Your task to perform on an android device: turn on the 24-hour format for clock Image 0: 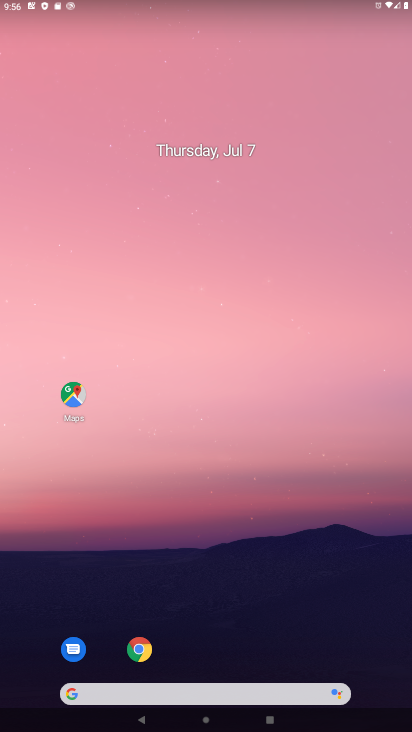
Step 0: drag from (232, 679) to (234, 230)
Your task to perform on an android device: turn on the 24-hour format for clock Image 1: 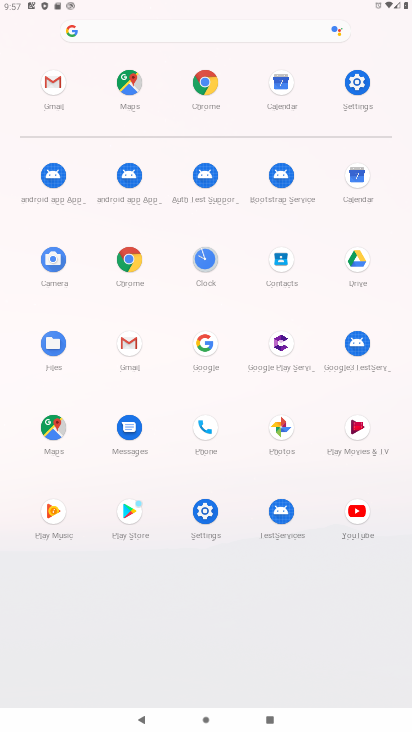
Step 1: click (204, 258)
Your task to perform on an android device: turn on the 24-hour format for clock Image 2: 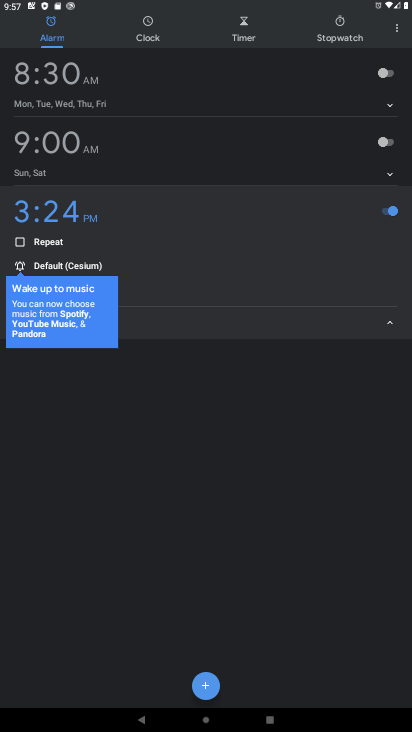
Step 2: click (399, 31)
Your task to perform on an android device: turn on the 24-hour format for clock Image 3: 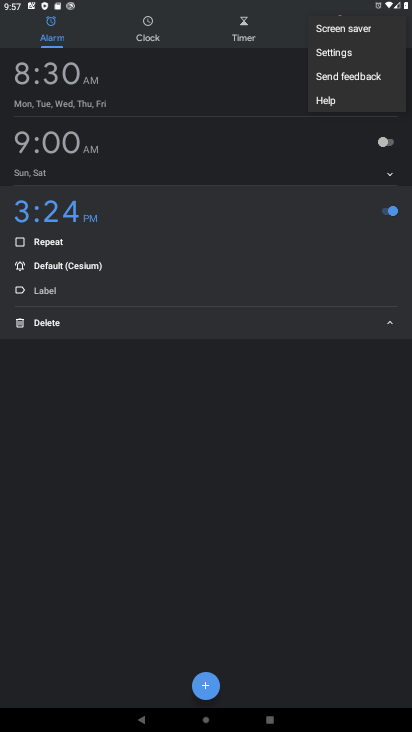
Step 3: click (339, 53)
Your task to perform on an android device: turn on the 24-hour format for clock Image 4: 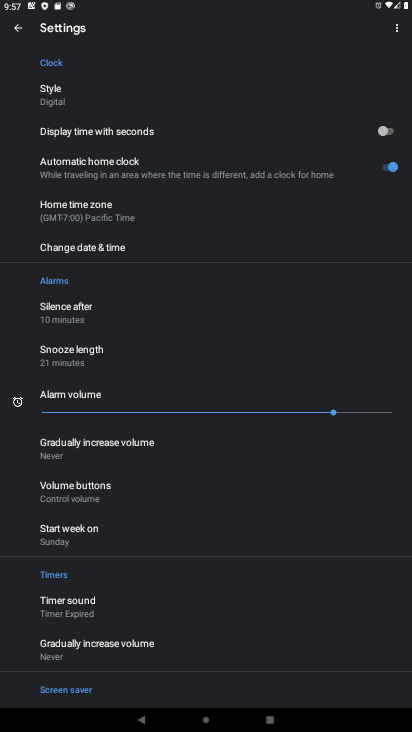
Step 4: click (98, 244)
Your task to perform on an android device: turn on the 24-hour format for clock Image 5: 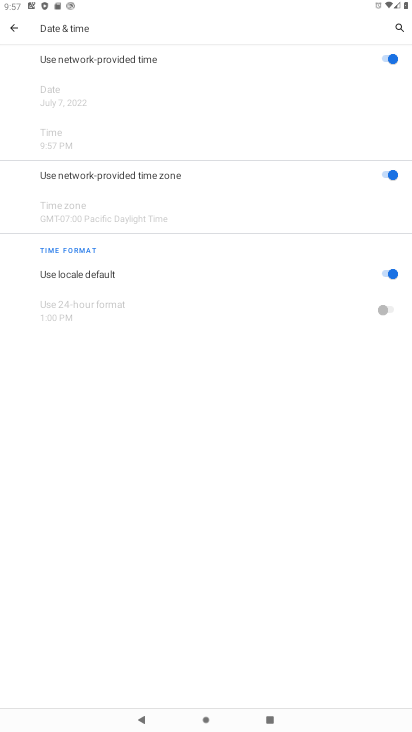
Step 5: click (386, 270)
Your task to perform on an android device: turn on the 24-hour format for clock Image 6: 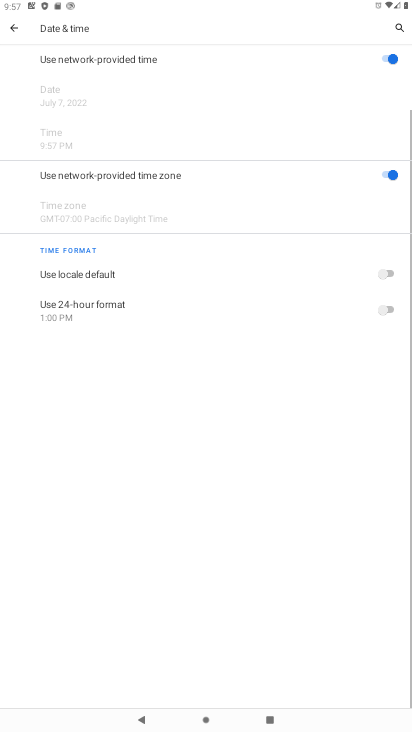
Step 6: click (394, 308)
Your task to perform on an android device: turn on the 24-hour format for clock Image 7: 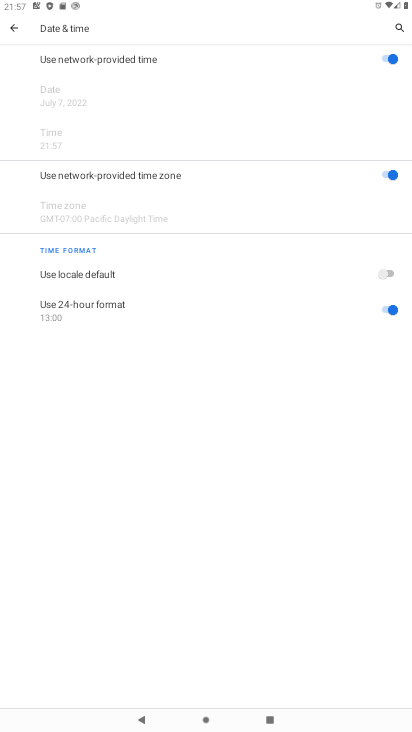
Step 7: task complete